Your task to perform on an android device: Go to sound settings Image 0: 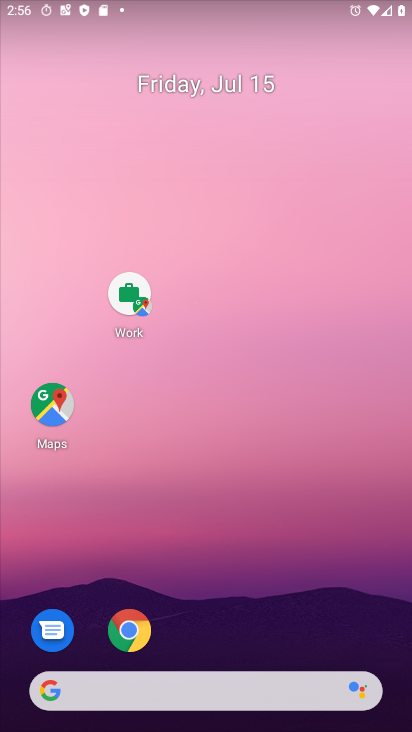
Step 0: drag from (236, 634) to (235, 229)
Your task to perform on an android device: Go to sound settings Image 1: 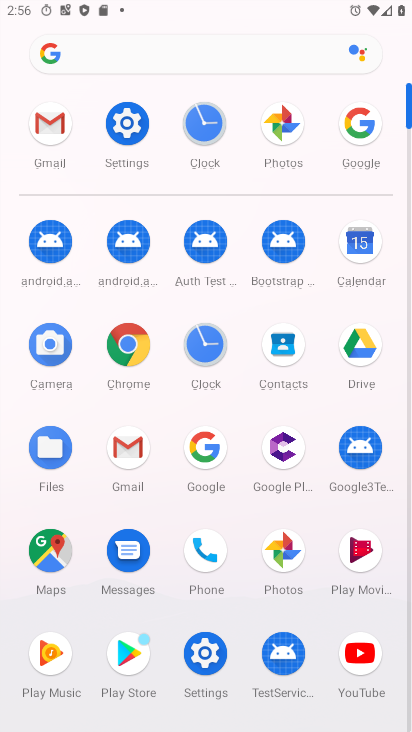
Step 1: click (132, 131)
Your task to perform on an android device: Go to sound settings Image 2: 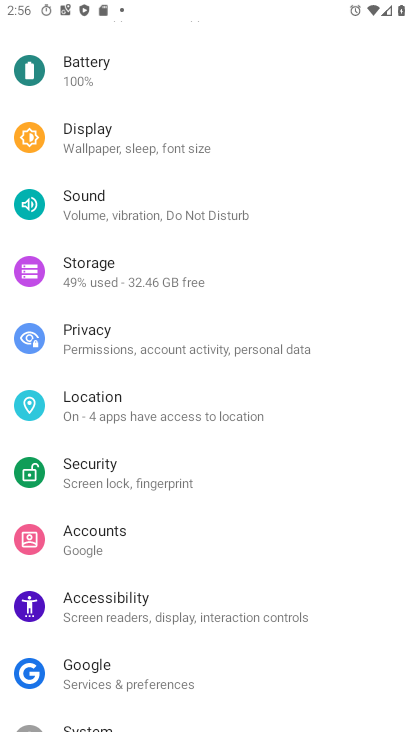
Step 2: click (127, 214)
Your task to perform on an android device: Go to sound settings Image 3: 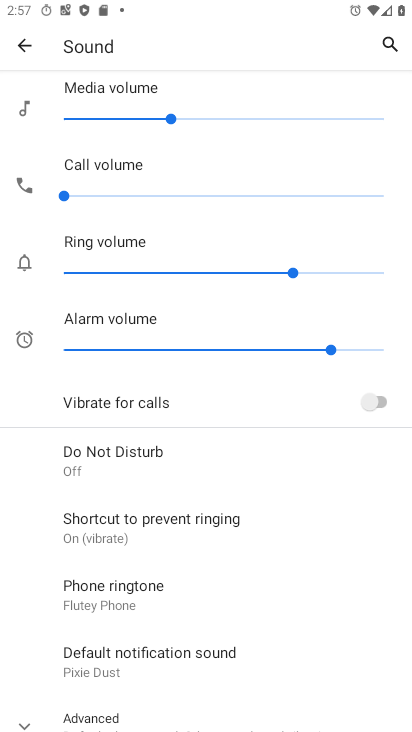
Step 3: task complete